Your task to perform on an android device: move a message to another label in the gmail app Image 0: 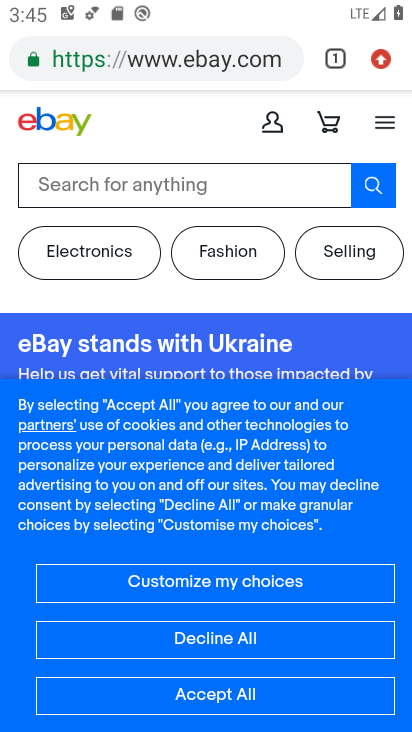
Step 0: press back button
Your task to perform on an android device: move a message to another label in the gmail app Image 1: 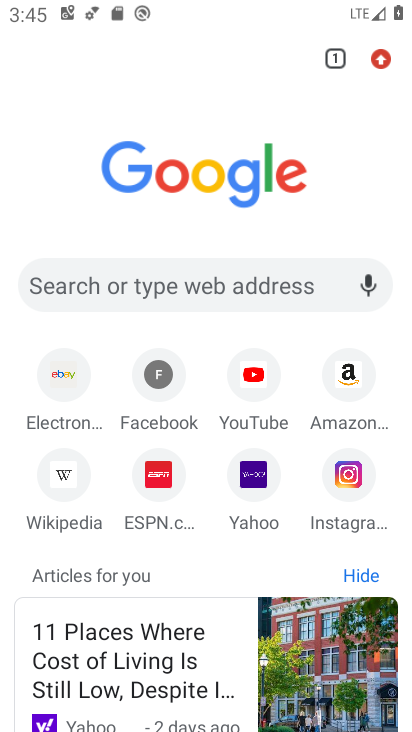
Step 1: press back button
Your task to perform on an android device: move a message to another label in the gmail app Image 2: 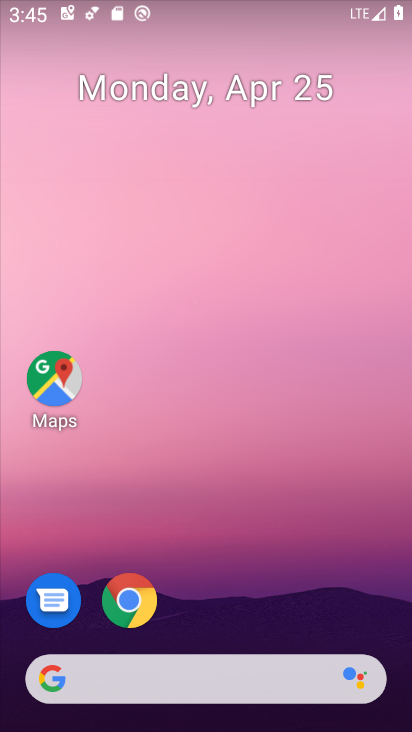
Step 2: drag from (285, 555) to (297, 9)
Your task to perform on an android device: move a message to another label in the gmail app Image 3: 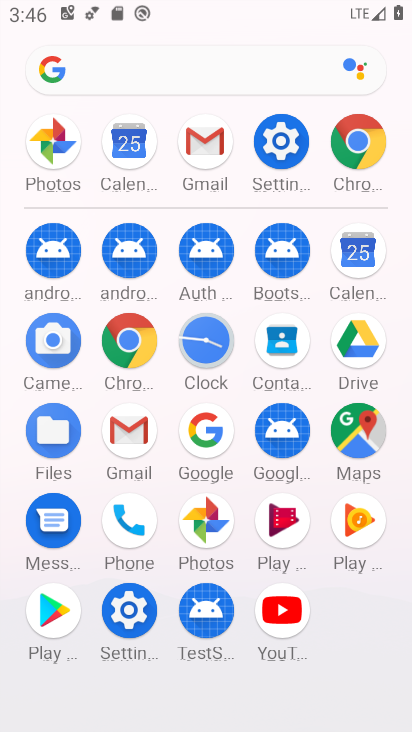
Step 3: drag from (9, 498) to (11, 213)
Your task to perform on an android device: move a message to another label in the gmail app Image 4: 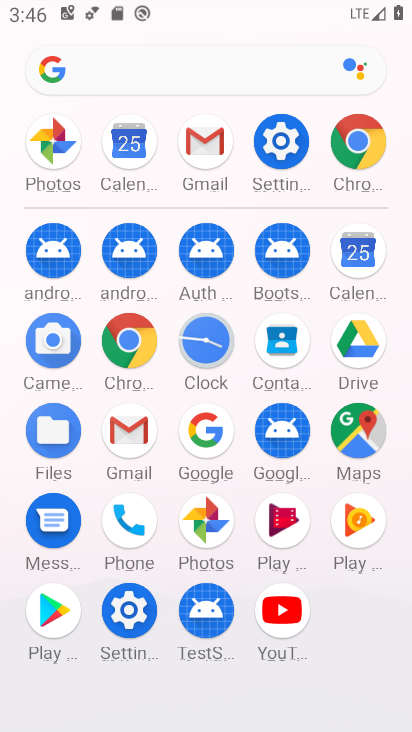
Step 4: click (128, 427)
Your task to perform on an android device: move a message to another label in the gmail app Image 5: 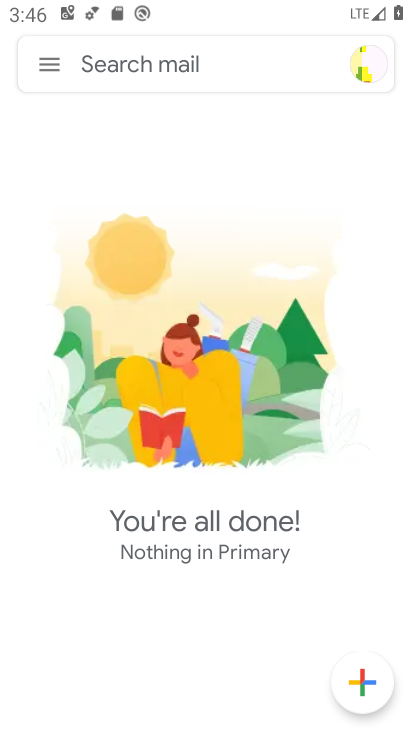
Step 5: click (44, 62)
Your task to perform on an android device: move a message to another label in the gmail app Image 6: 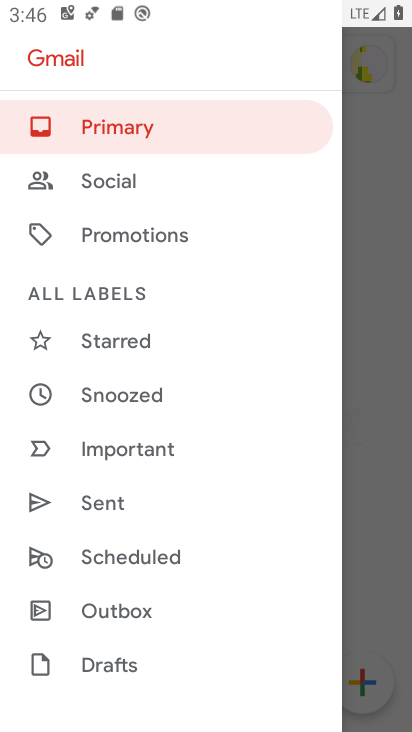
Step 6: drag from (161, 626) to (207, 148)
Your task to perform on an android device: move a message to another label in the gmail app Image 7: 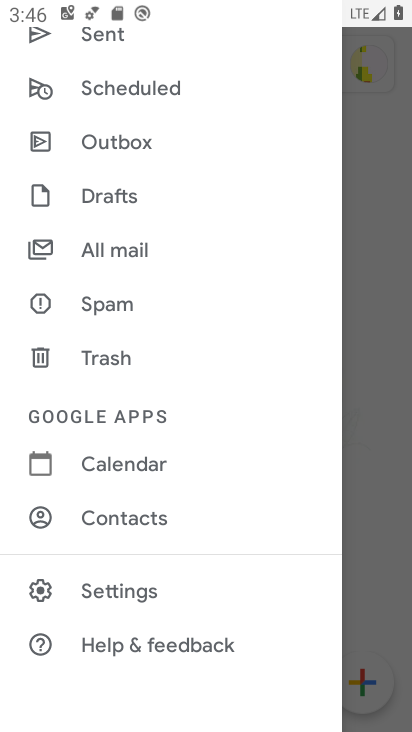
Step 7: click (138, 249)
Your task to perform on an android device: move a message to another label in the gmail app Image 8: 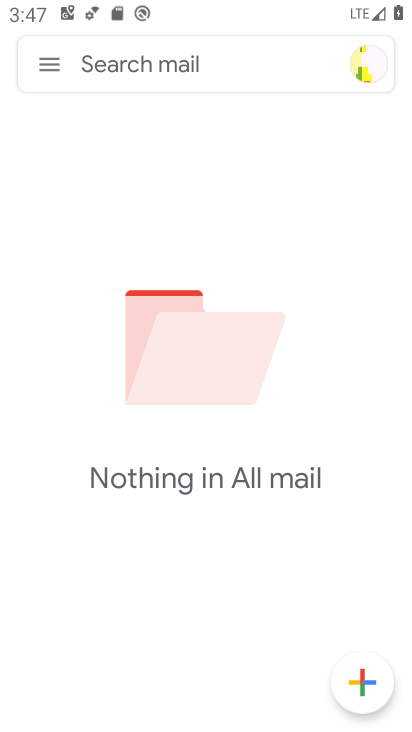
Step 8: task complete